Your task to perform on an android device: What's the news in Argentina? Image 0: 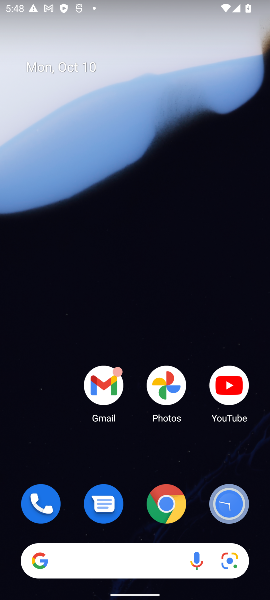
Step 0: drag from (112, 456) to (58, 166)
Your task to perform on an android device: What's the news in Argentina? Image 1: 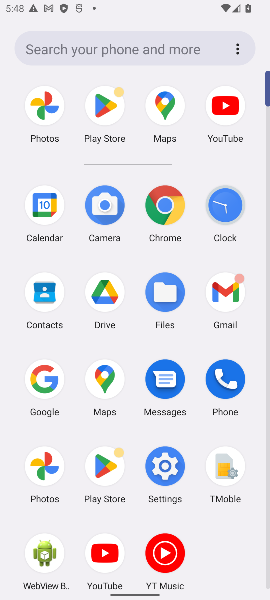
Step 1: click (164, 221)
Your task to perform on an android device: What's the news in Argentina? Image 2: 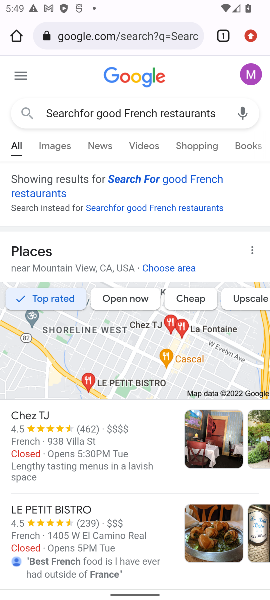
Step 2: click (172, 106)
Your task to perform on an android device: What's the news in Argentina? Image 3: 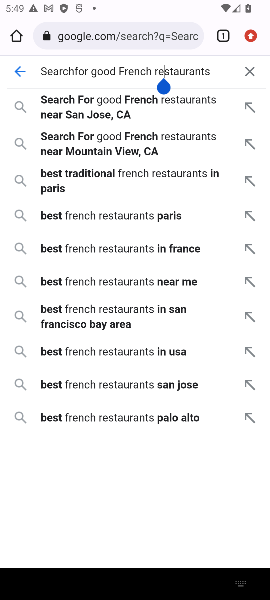
Step 3: click (172, 106)
Your task to perform on an android device: What's the news in Argentina? Image 4: 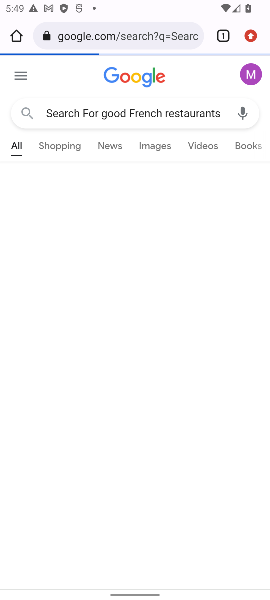
Step 4: click (166, 38)
Your task to perform on an android device: What's the news in Argentina? Image 5: 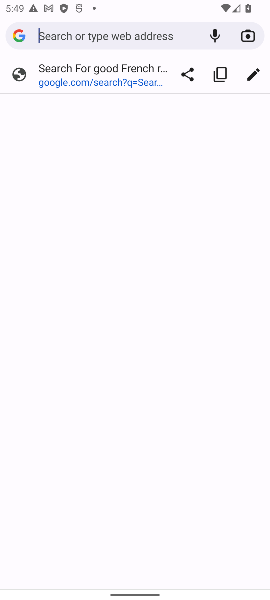
Step 5: click (150, 32)
Your task to perform on an android device: What's the news in Argentina? Image 6: 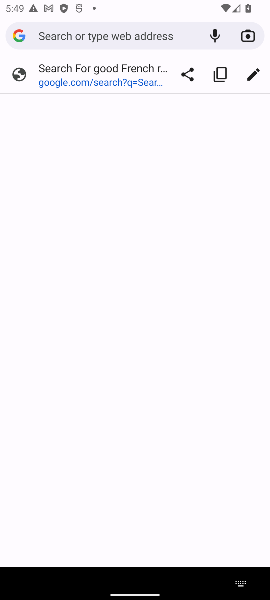
Step 6: type "What's the news in Argentina?"
Your task to perform on an android device: What's the news in Argentina? Image 7: 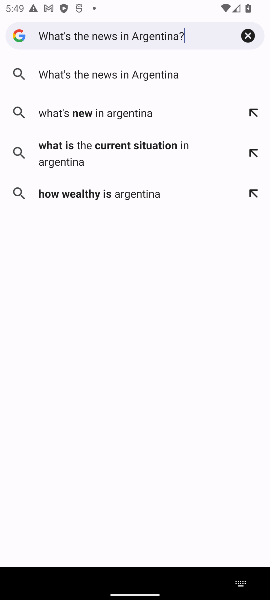
Step 7: press enter
Your task to perform on an android device: What's the news in Argentina? Image 8: 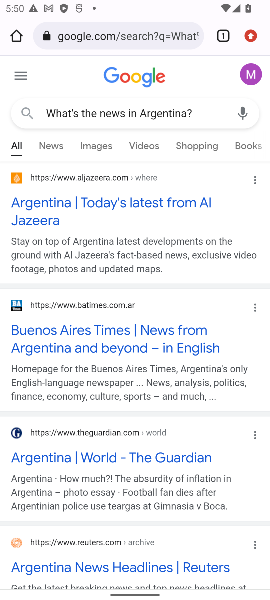
Step 8: click (92, 201)
Your task to perform on an android device: What's the news in Argentina? Image 9: 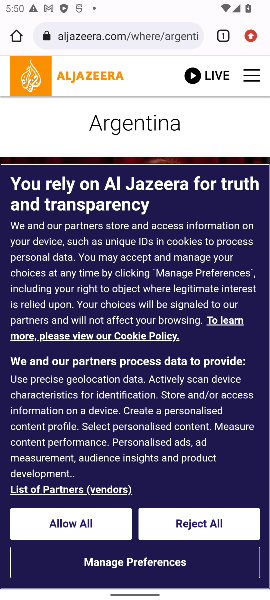
Step 9: task complete